Your task to perform on an android device: Open wifi settings Image 0: 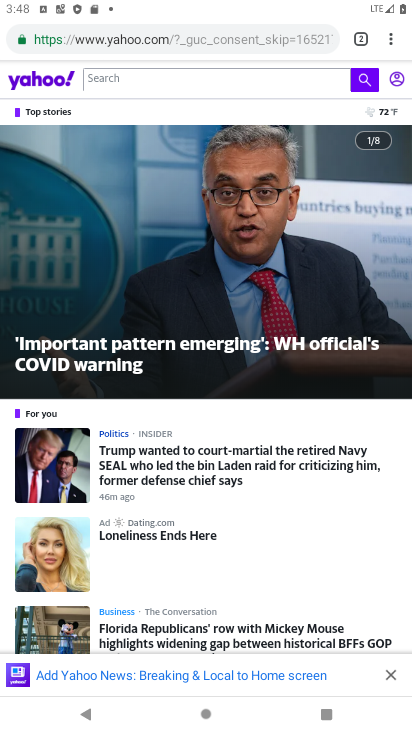
Step 0: press home button
Your task to perform on an android device: Open wifi settings Image 1: 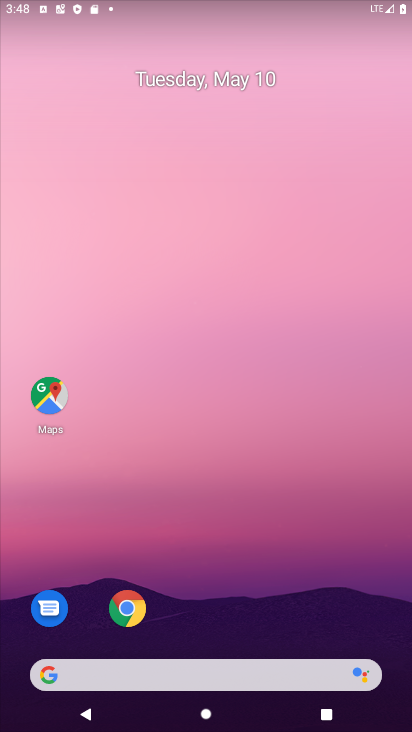
Step 1: drag from (392, 646) to (324, 137)
Your task to perform on an android device: Open wifi settings Image 2: 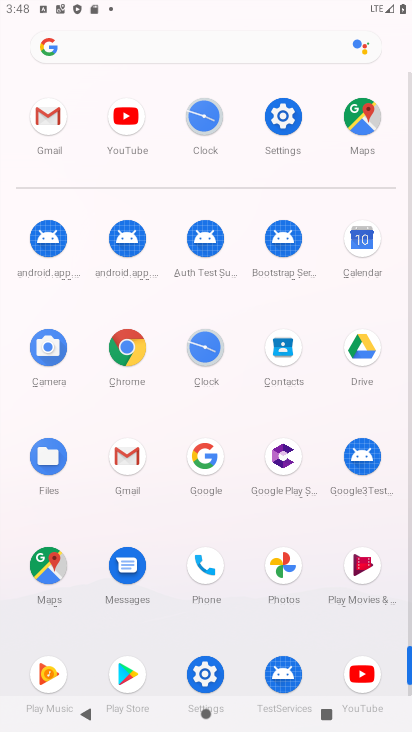
Step 2: click (208, 670)
Your task to perform on an android device: Open wifi settings Image 3: 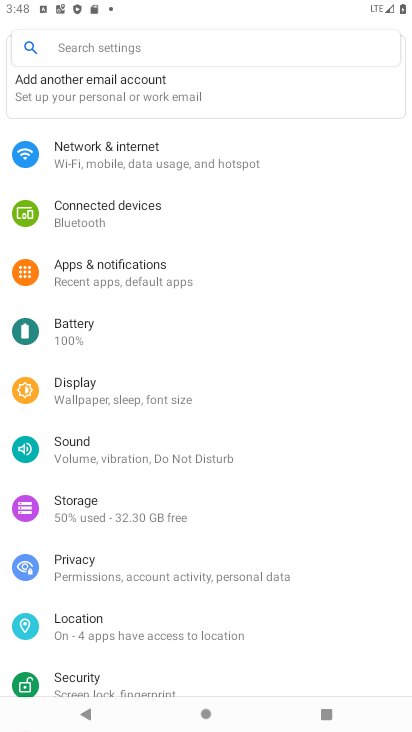
Step 3: click (85, 145)
Your task to perform on an android device: Open wifi settings Image 4: 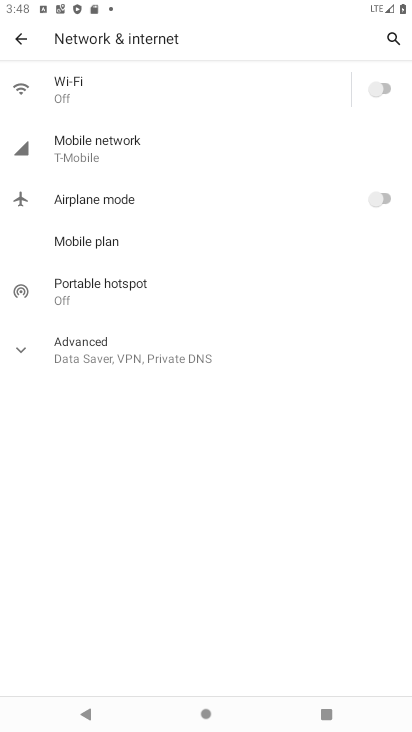
Step 4: click (64, 84)
Your task to perform on an android device: Open wifi settings Image 5: 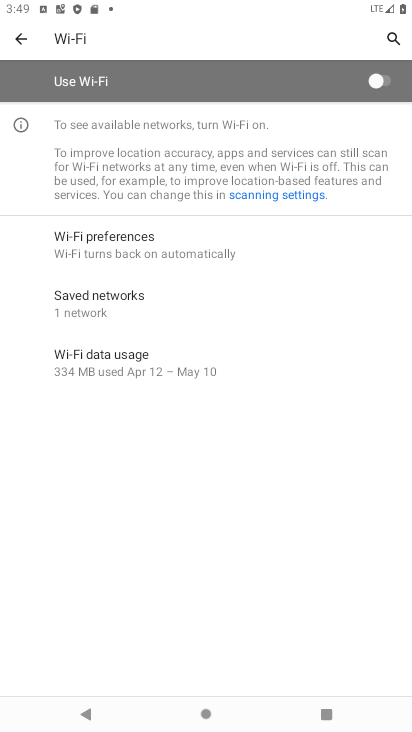
Step 5: task complete